Your task to perform on an android device: Open wifi settings Image 0: 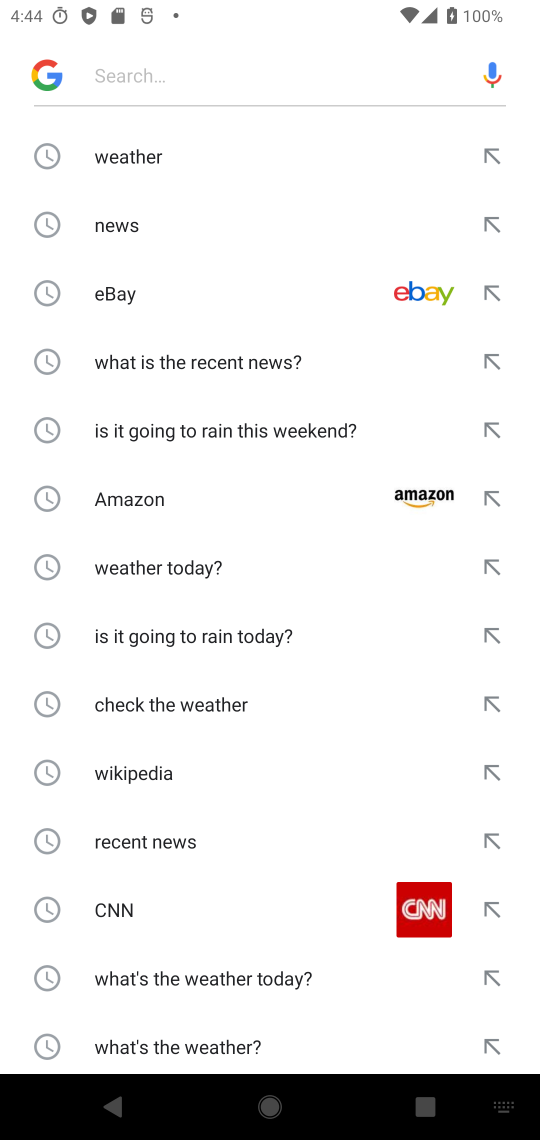
Step 0: press home button
Your task to perform on an android device: Open wifi settings Image 1: 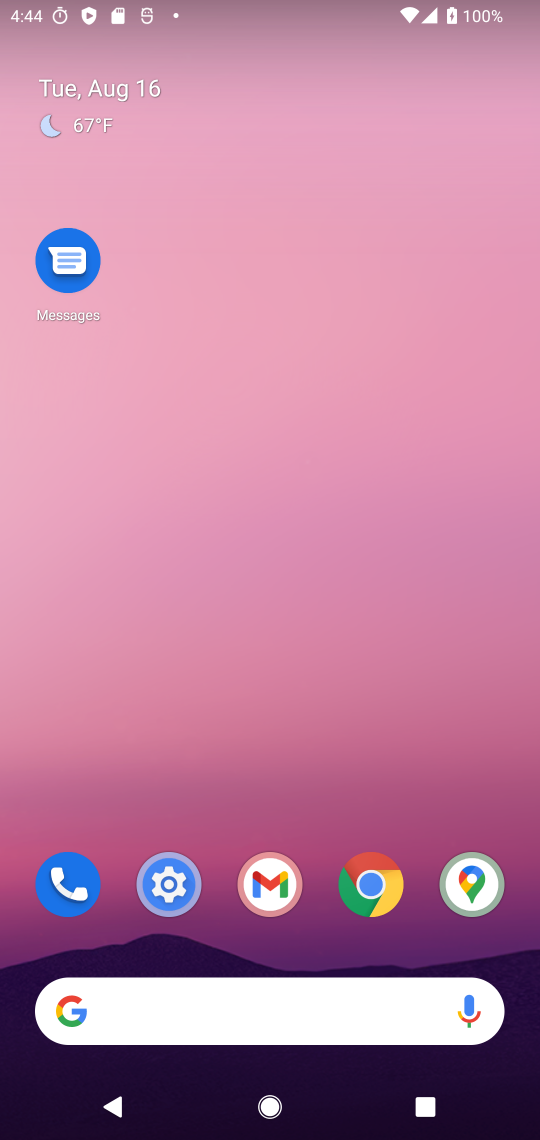
Step 1: click (168, 888)
Your task to perform on an android device: Open wifi settings Image 2: 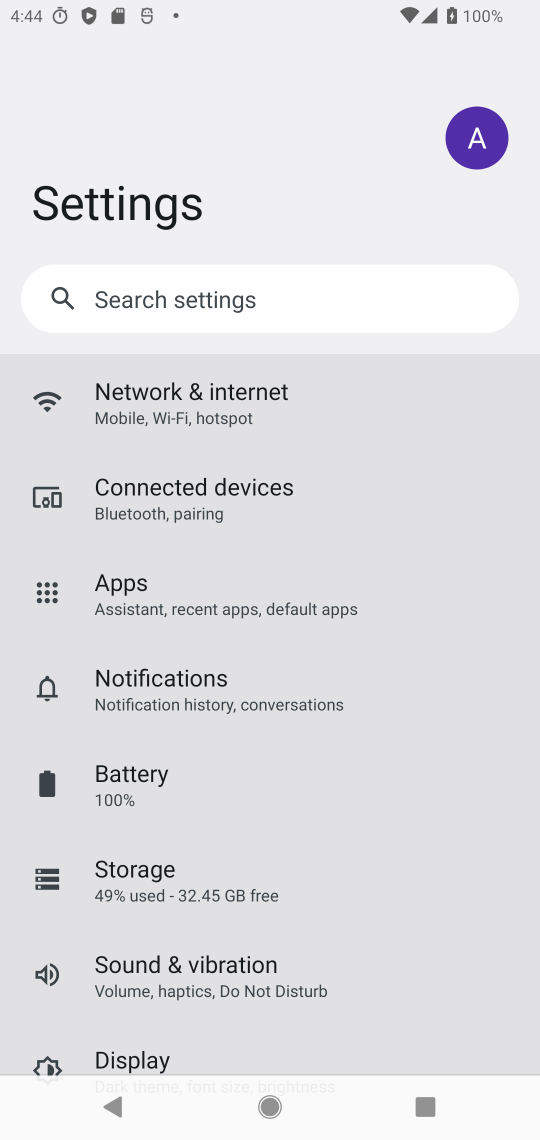
Step 2: click (216, 407)
Your task to perform on an android device: Open wifi settings Image 3: 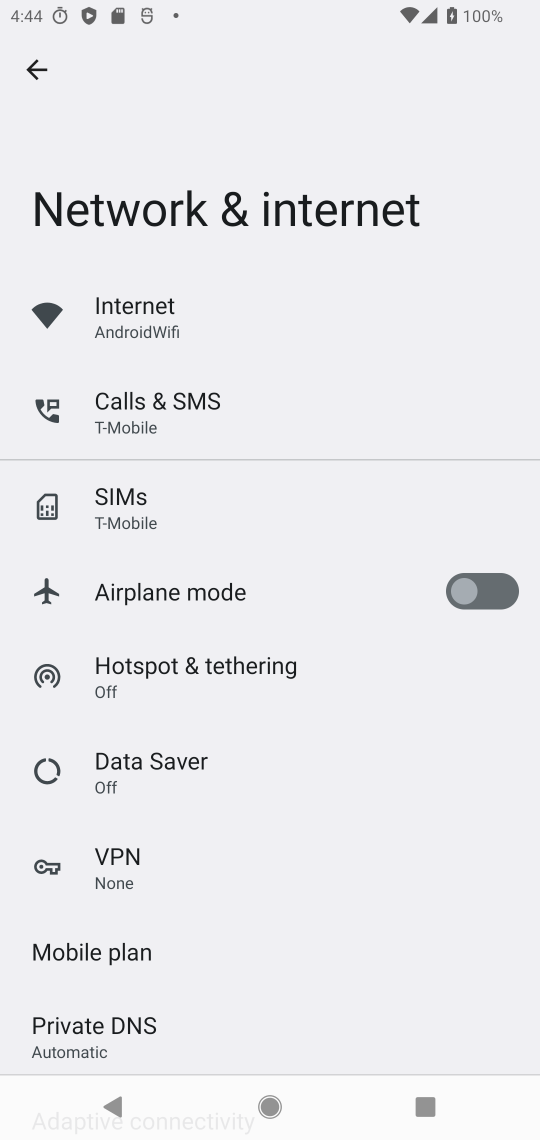
Step 3: click (124, 317)
Your task to perform on an android device: Open wifi settings Image 4: 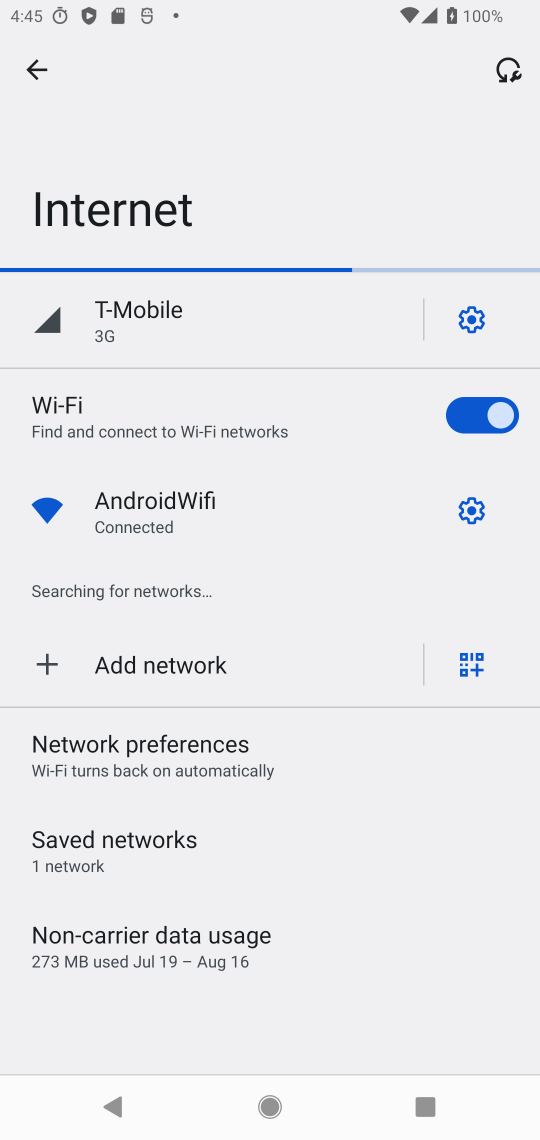
Step 4: task complete